Your task to perform on an android device: Open Chrome and go to settings Image 0: 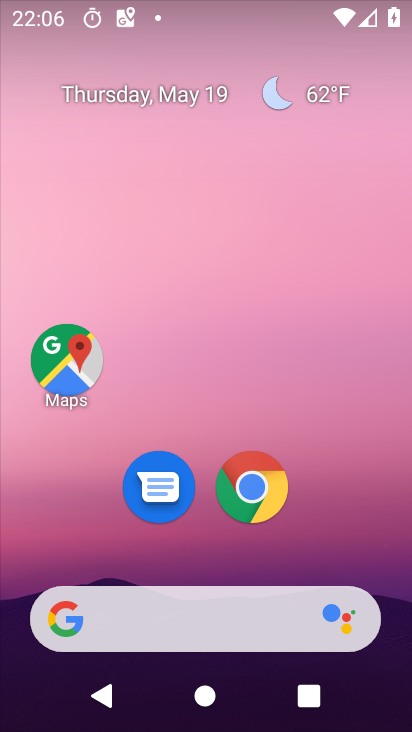
Step 0: click (257, 491)
Your task to perform on an android device: Open Chrome and go to settings Image 1: 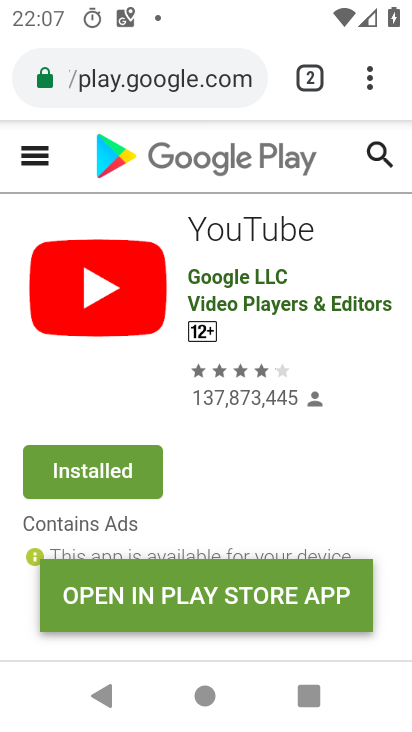
Step 1: click (378, 74)
Your task to perform on an android device: Open Chrome and go to settings Image 2: 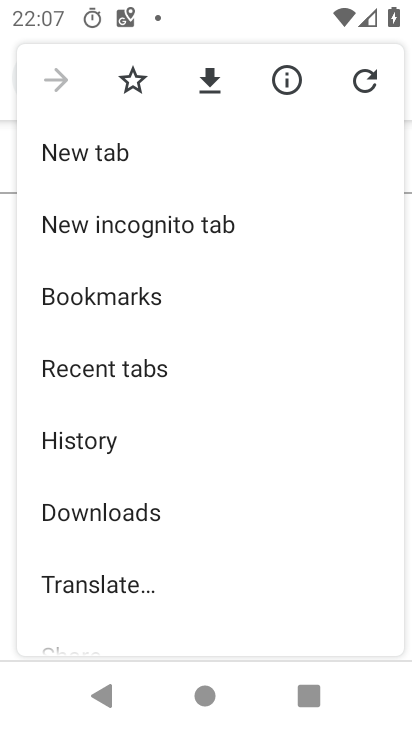
Step 2: drag from (233, 551) to (236, 298)
Your task to perform on an android device: Open Chrome and go to settings Image 3: 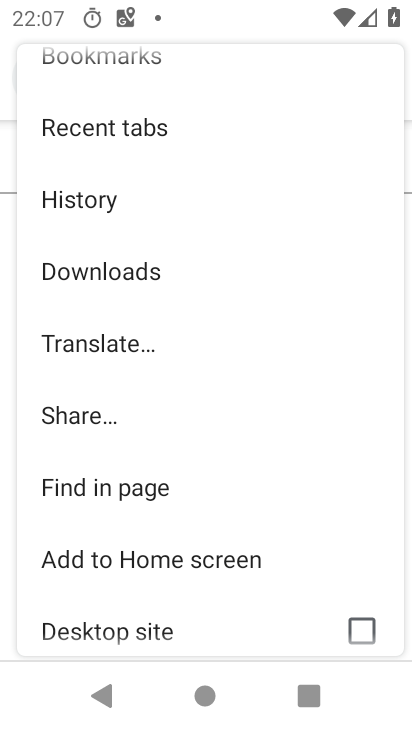
Step 3: drag from (232, 595) to (206, 321)
Your task to perform on an android device: Open Chrome and go to settings Image 4: 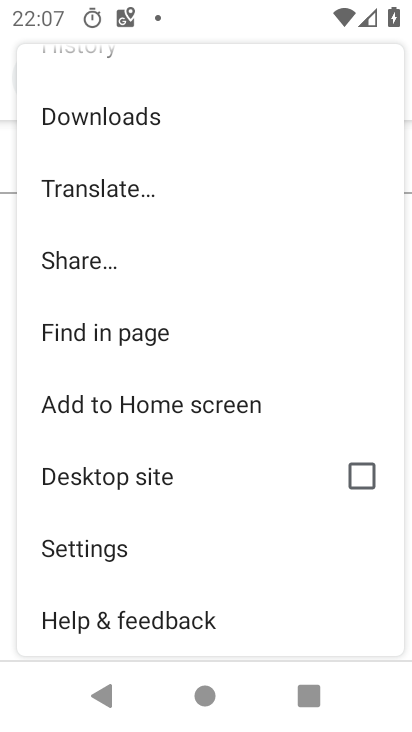
Step 4: click (108, 544)
Your task to perform on an android device: Open Chrome and go to settings Image 5: 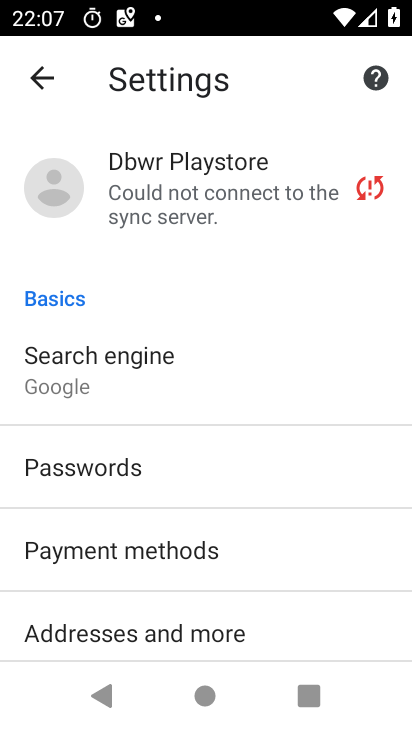
Step 5: task complete